Your task to perform on an android device: turn on data saver in the chrome app Image 0: 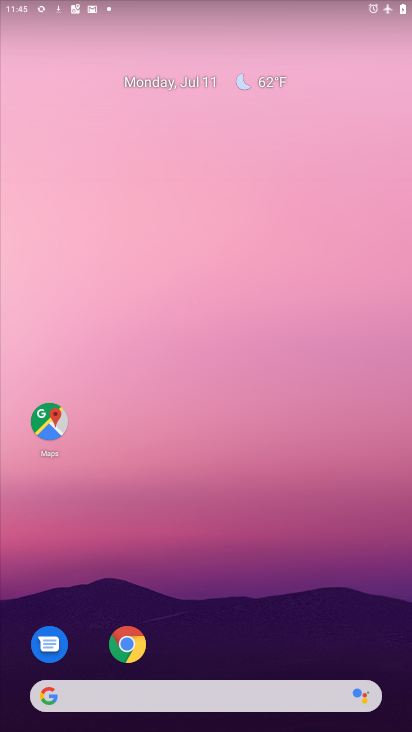
Step 0: drag from (204, 669) to (300, 168)
Your task to perform on an android device: turn on data saver in the chrome app Image 1: 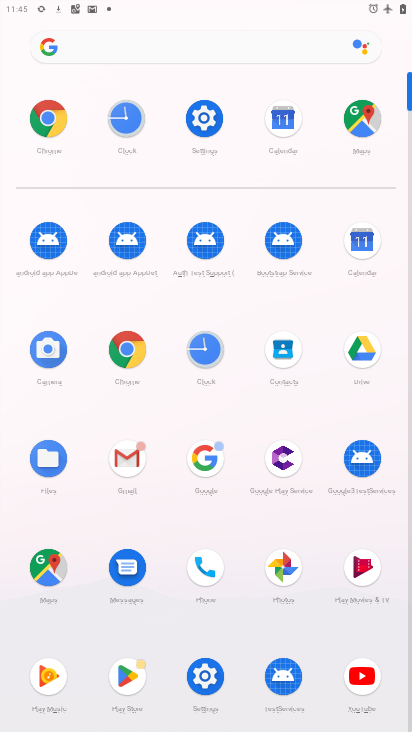
Step 1: click (120, 372)
Your task to perform on an android device: turn on data saver in the chrome app Image 2: 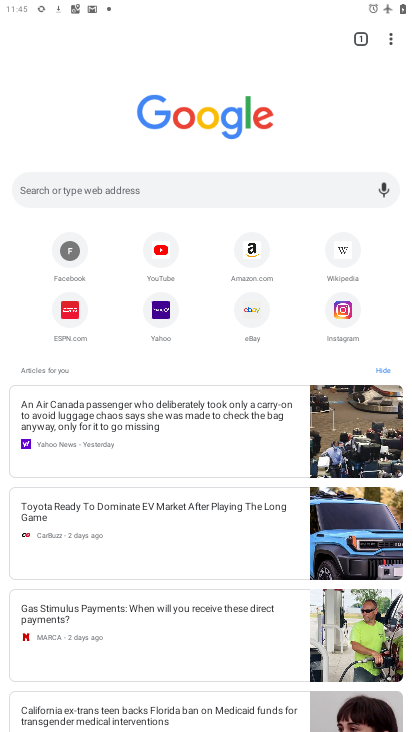
Step 2: drag from (394, 38) to (252, 360)
Your task to perform on an android device: turn on data saver in the chrome app Image 3: 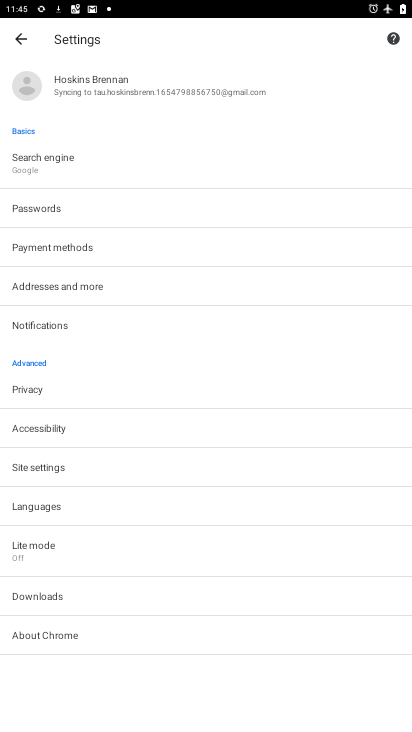
Step 3: click (35, 571)
Your task to perform on an android device: turn on data saver in the chrome app Image 4: 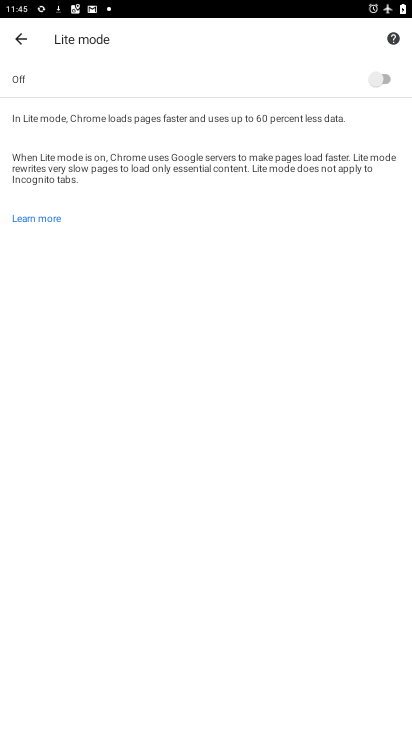
Step 4: click (372, 82)
Your task to perform on an android device: turn on data saver in the chrome app Image 5: 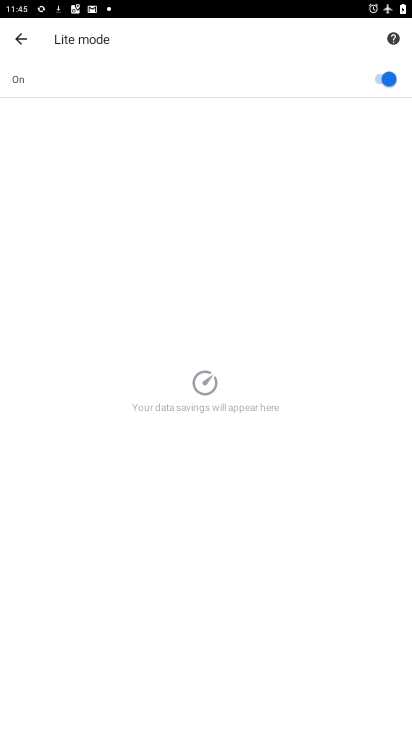
Step 5: task complete